Your task to perform on an android device: turn off notifications in google photos Image 0: 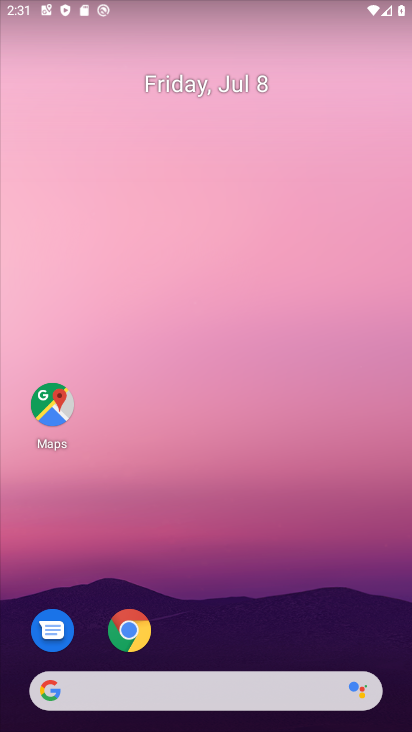
Step 0: drag from (276, 642) to (251, 117)
Your task to perform on an android device: turn off notifications in google photos Image 1: 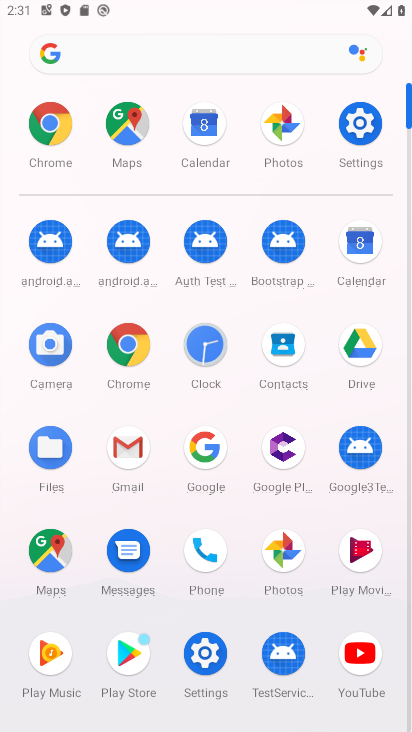
Step 1: click (269, 119)
Your task to perform on an android device: turn off notifications in google photos Image 2: 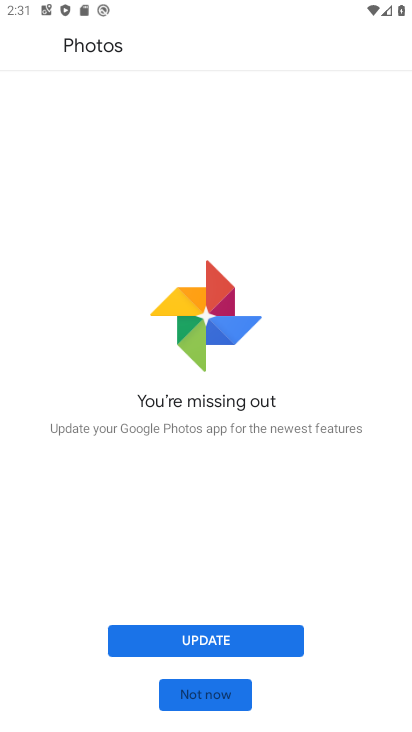
Step 2: click (156, 636)
Your task to perform on an android device: turn off notifications in google photos Image 3: 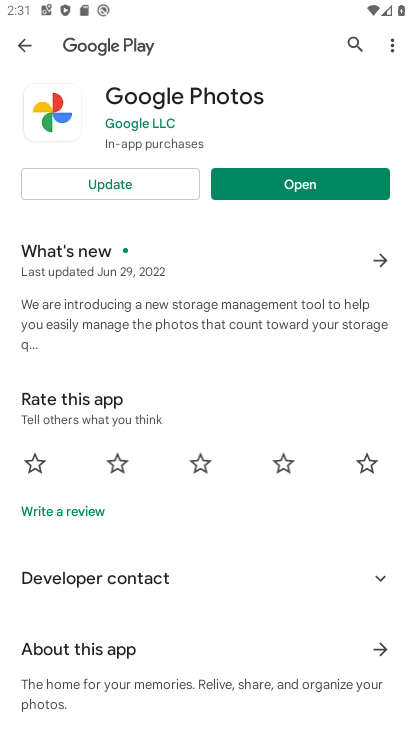
Step 3: click (39, 180)
Your task to perform on an android device: turn off notifications in google photos Image 4: 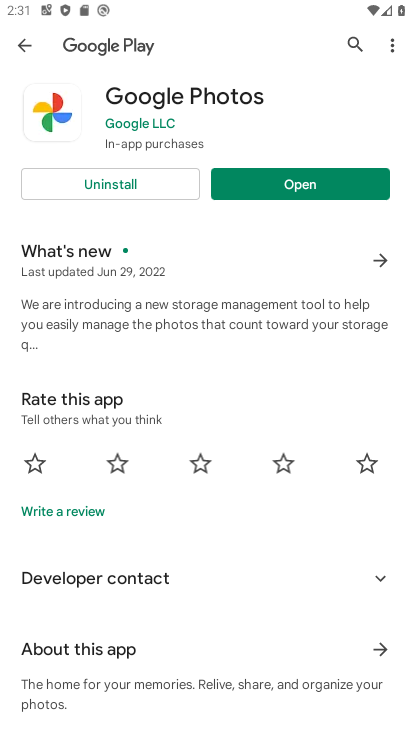
Step 4: click (285, 182)
Your task to perform on an android device: turn off notifications in google photos Image 5: 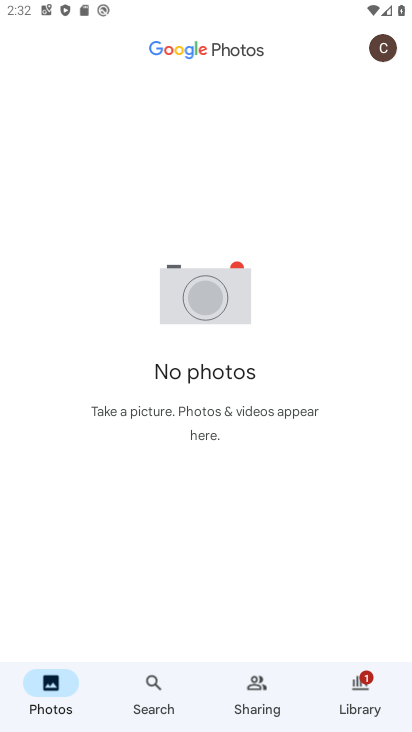
Step 5: click (354, 691)
Your task to perform on an android device: turn off notifications in google photos Image 6: 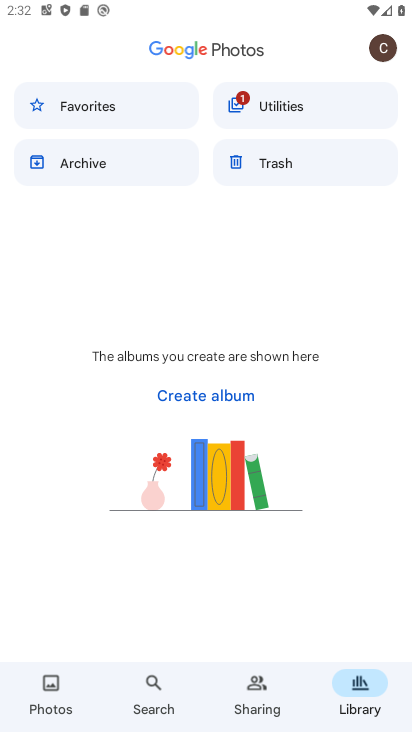
Step 6: click (385, 53)
Your task to perform on an android device: turn off notifications in google photos Image 7: 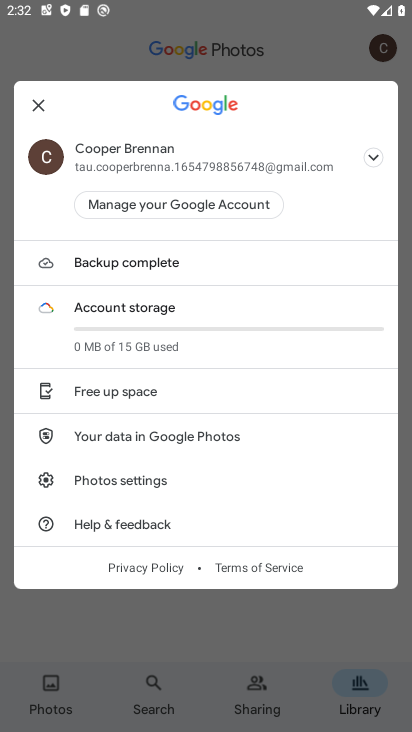
Step 7: click (215, 480)
Your task to perform on an android device: turn off notifications in google photos Image 8: 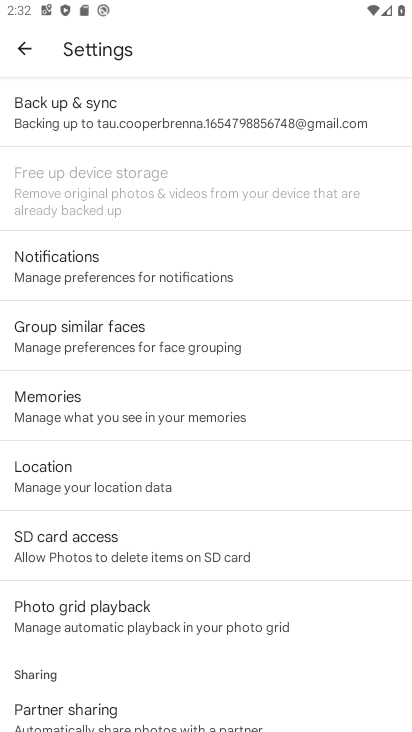
Step 8: click (151, 247)
Your task to perform on an android device: turn off notifications in google photos Image 9: 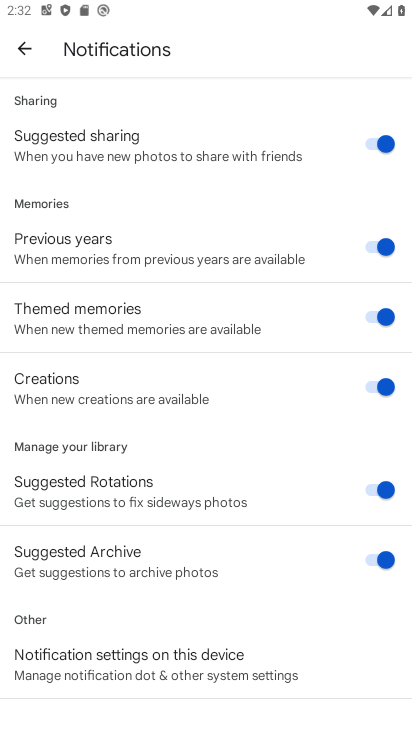
Step 9: task complete